Your task to perform on an android device: add a label to a message in the gmail app Image 0: 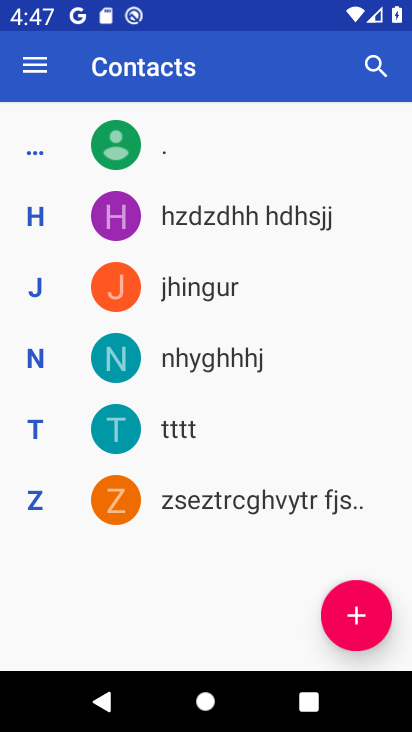
Step 0: press home button
Your task to perform on an android device: add a label to a message in the gmail app Image 1: 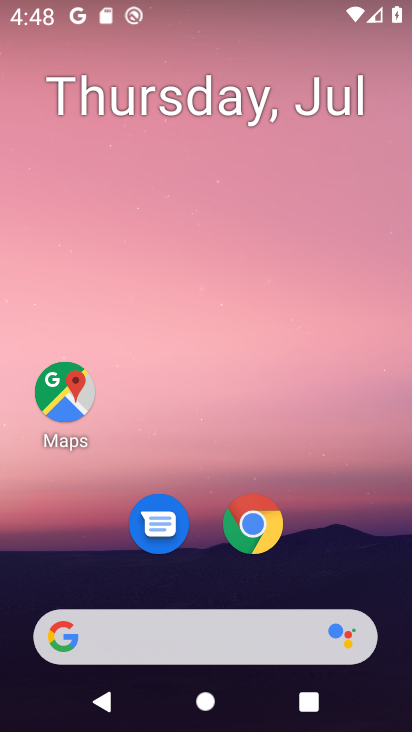
Step 1: drag from (196, 615) to (99, 238)
Your task to perform on an android device: add a label to a message in the gmail app Image 2: 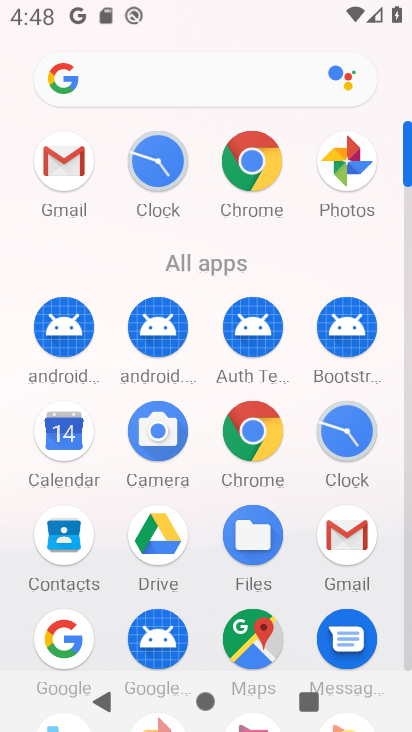
Step 2: click (340, 534)
Your task to perform on an android device: add a label to a message in the gmail app Image 3: 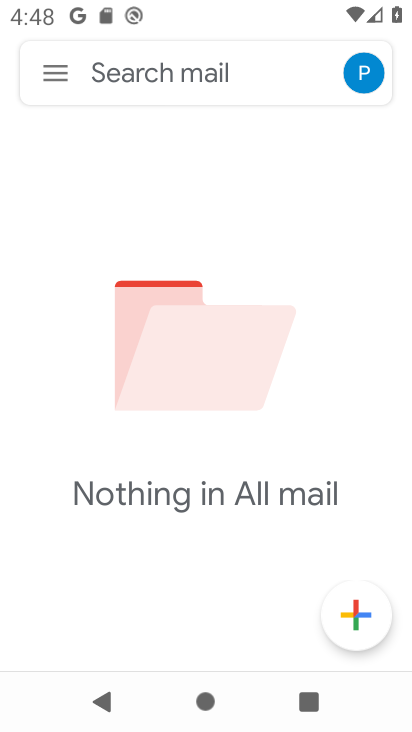
Step 3: click (58, 80)
Your task to perform on an android device: add a label to a message in the gmail app Image 4: 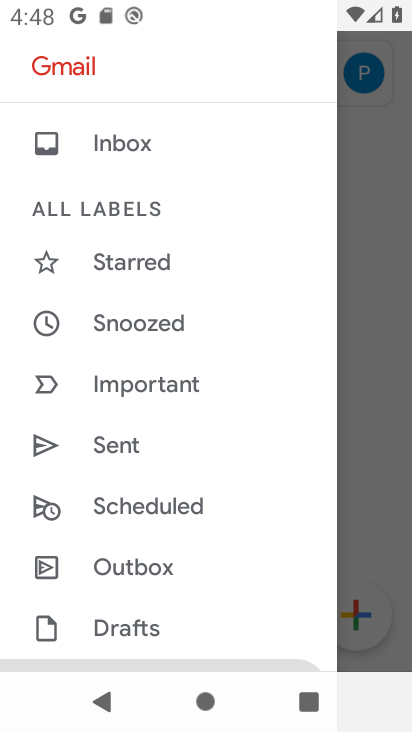
Step 4: click (109, 164)
Your task to perform on an android device: add a label to a message in the gmail app Image 5: 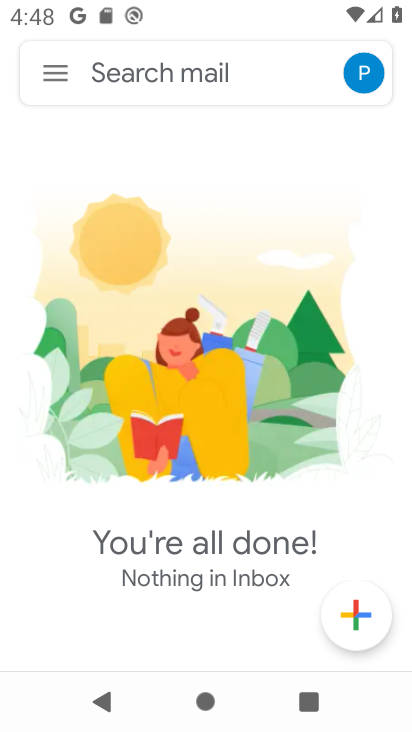
Step 5: task complete